Your task to perform on an android device: Add corsair k70 to the cart on newegg Image 0: 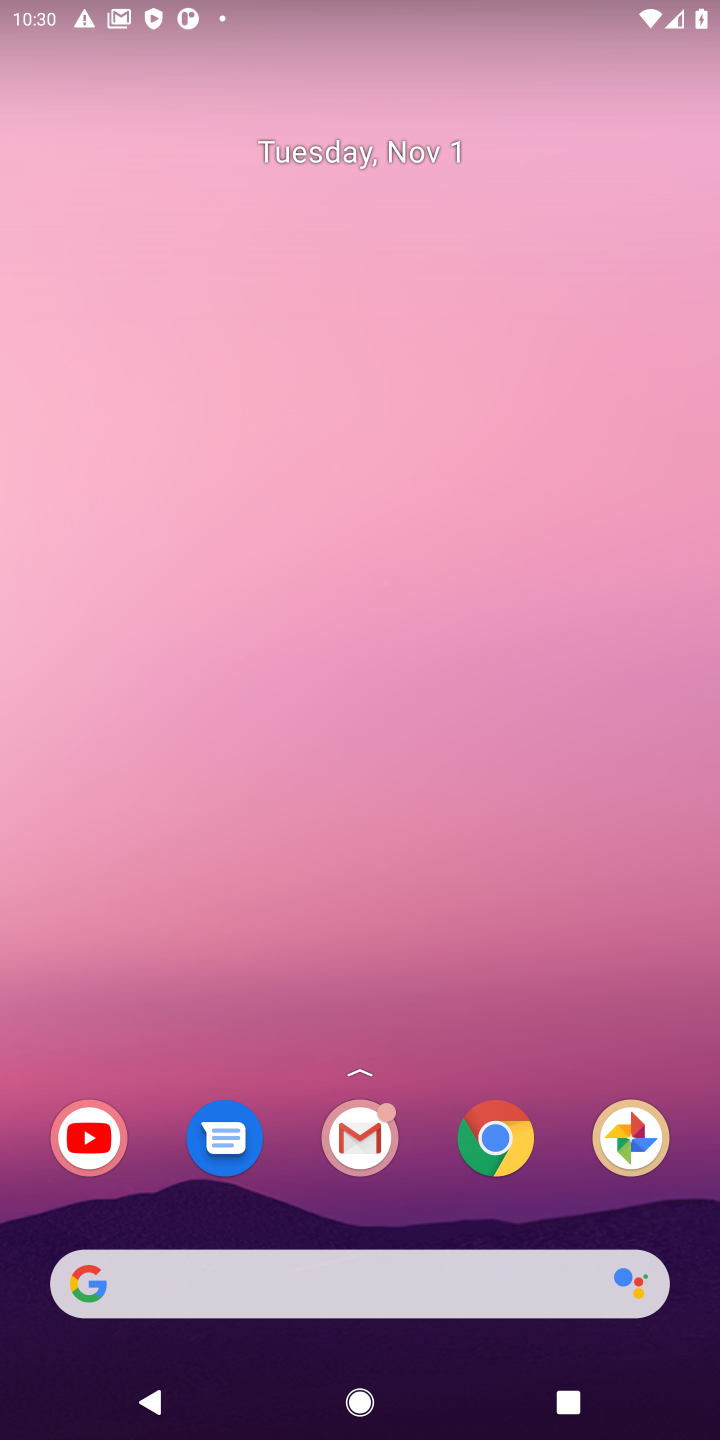
Step 0: click (513, 1143)
Your task to perform on an android device: Add corsair k70 to the cart on newegg Image 1: 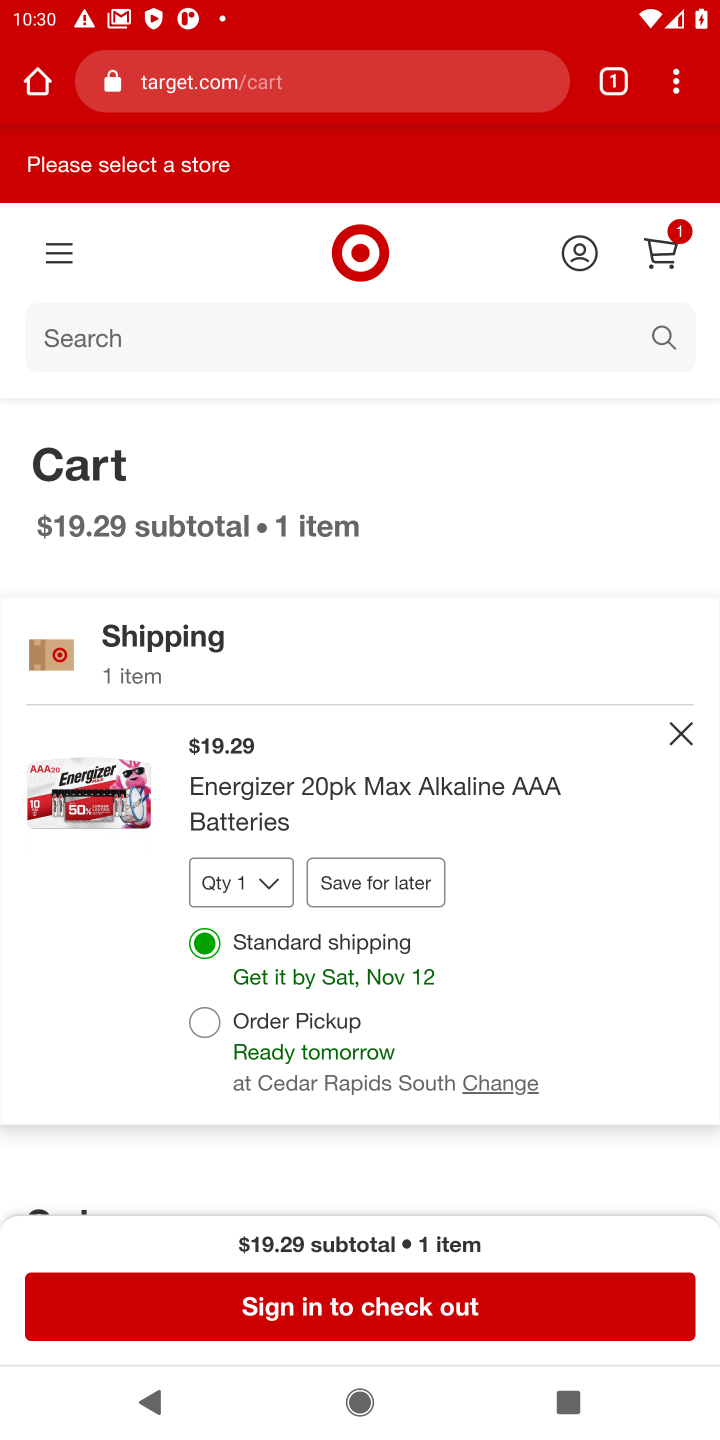
Step 1: click (274, 93)
Your task to perform on an android device: Add corsair k70 to the cart on newegg Image 2: 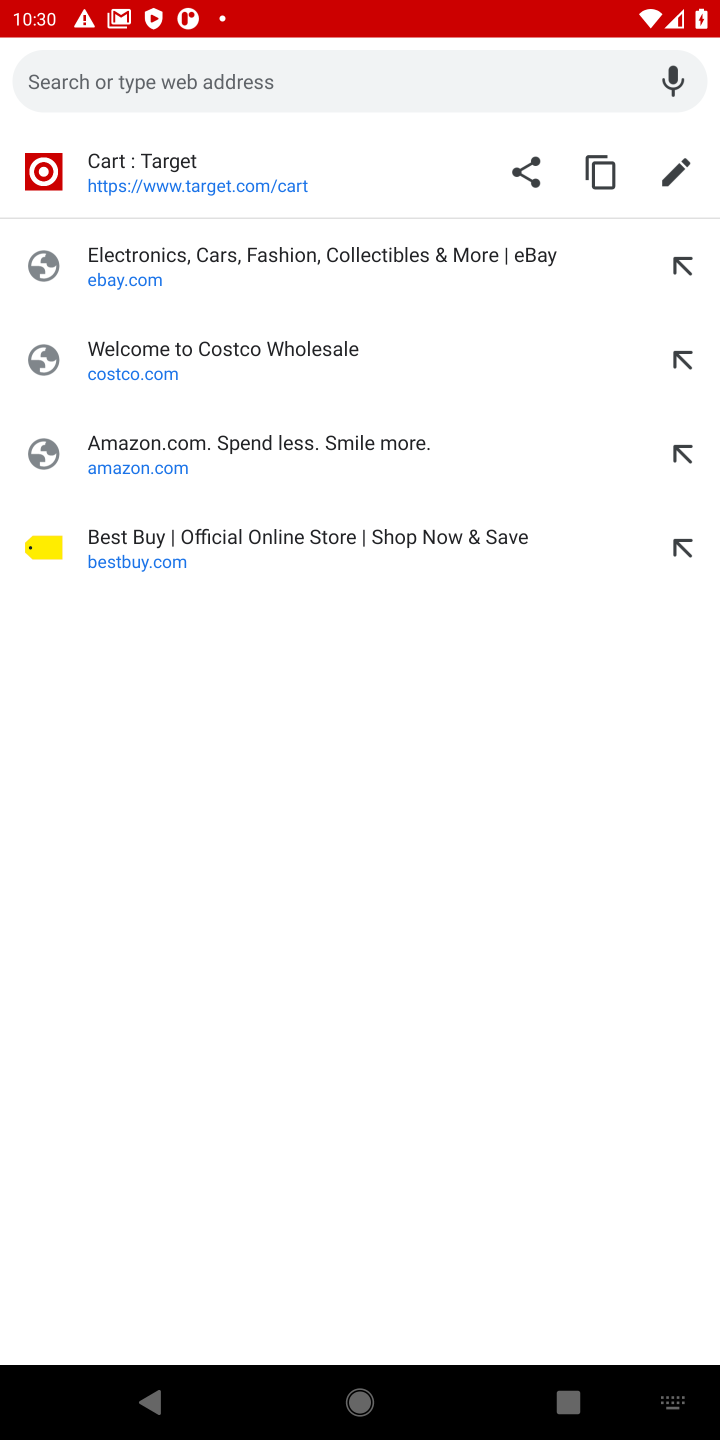
Step 2: type "newegg.com"
Your task to perform on an android device: Add corsair k70 to the cart on newegg Image 3: 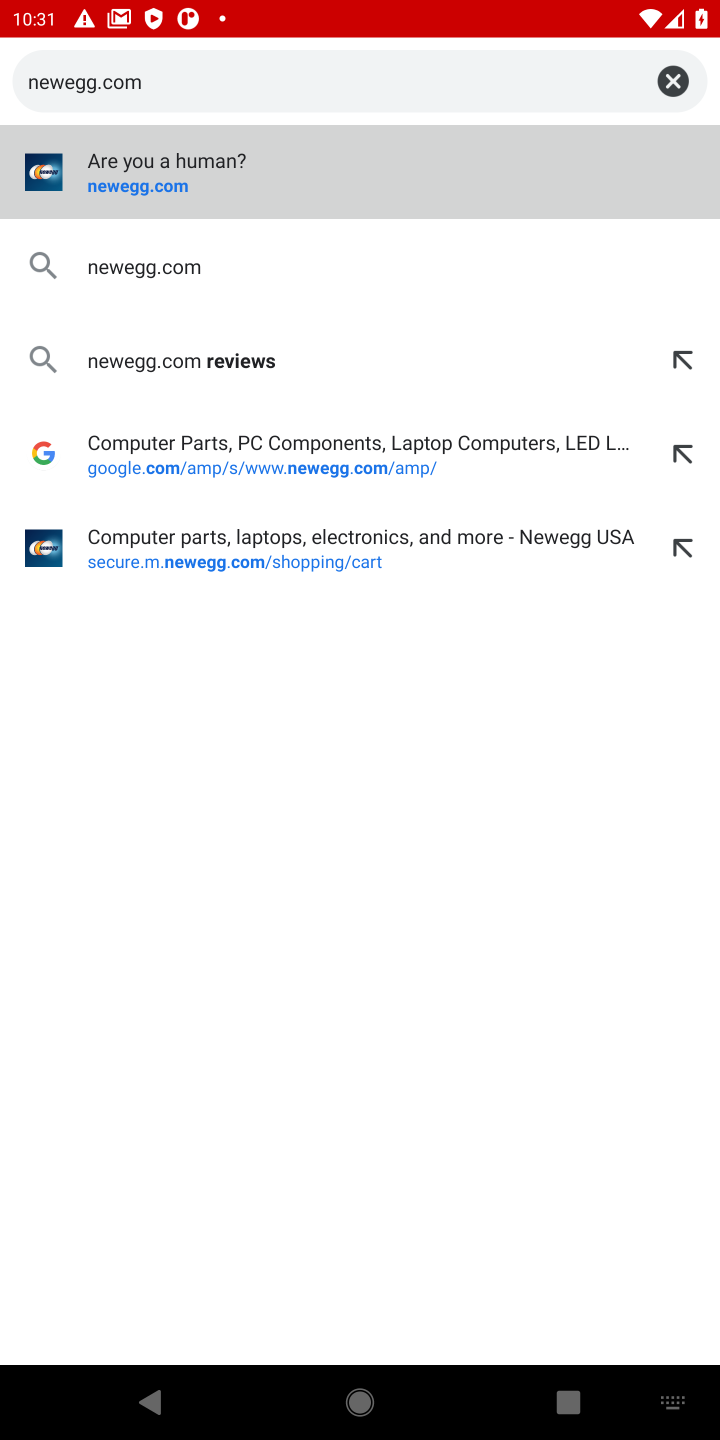
Step 3: click (134, 260)
Your task to perform on an android device: Add corsair k70 to the cart on newegg Image 4: 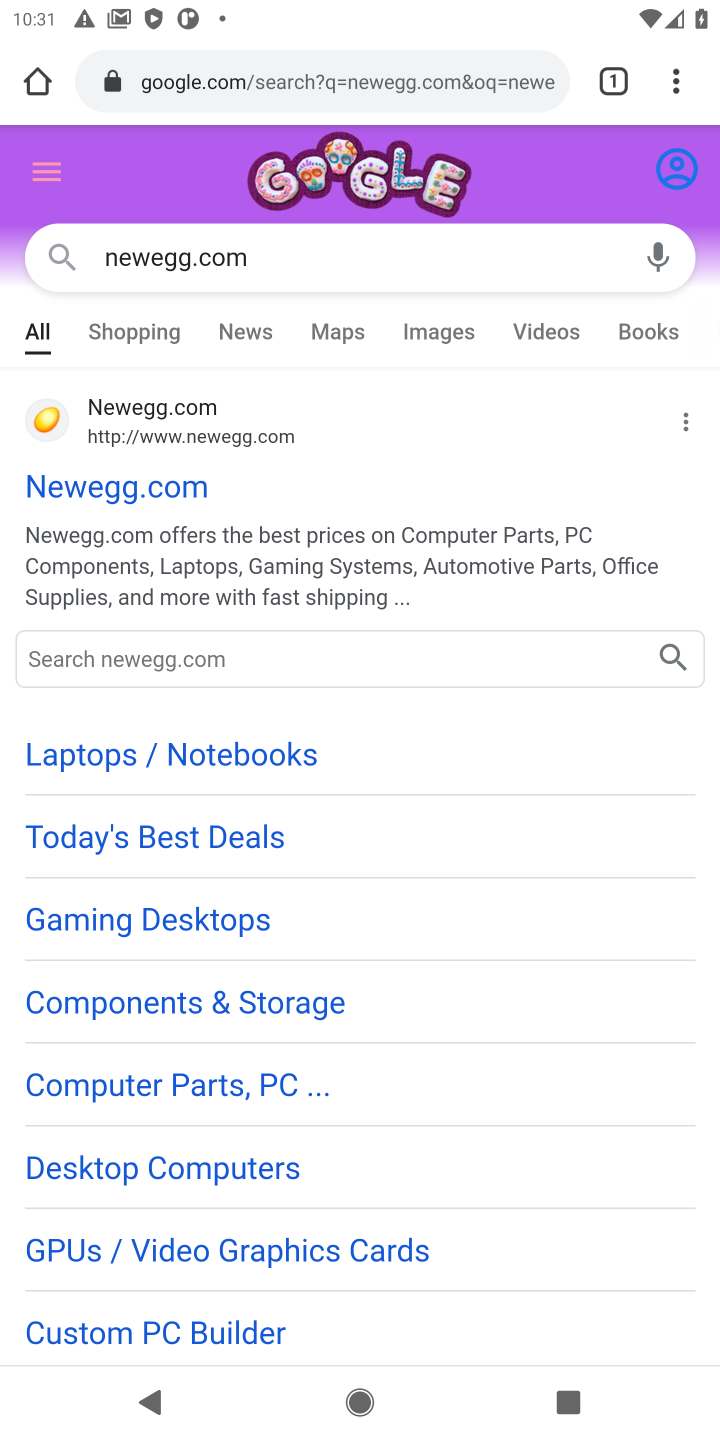
Step 4: click (100, 500)
Your task to perform on an android device: Add corsair k70 to the cart on newegg Image 5: 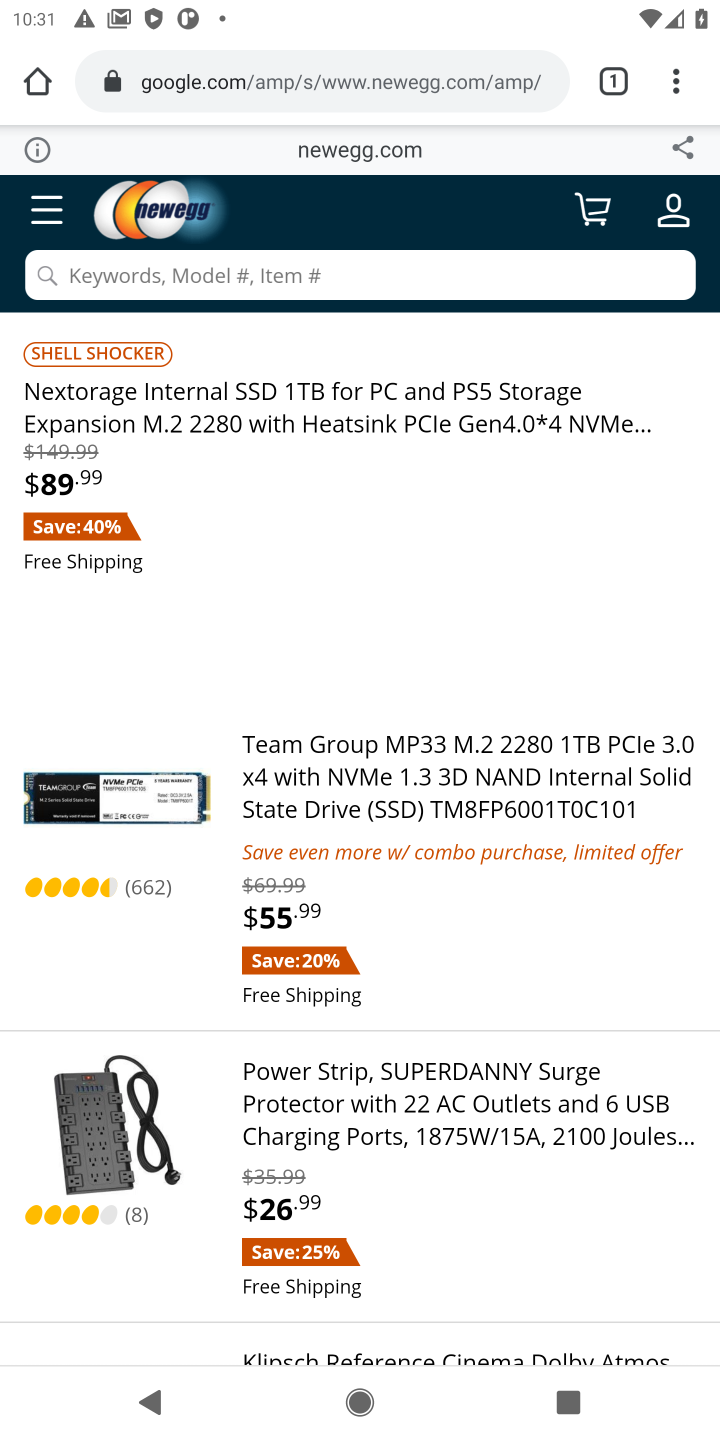
Step 5: click (231, 292)
Your task to perform on an android device: Add corsair k70 to the cart on newegg Image 6: 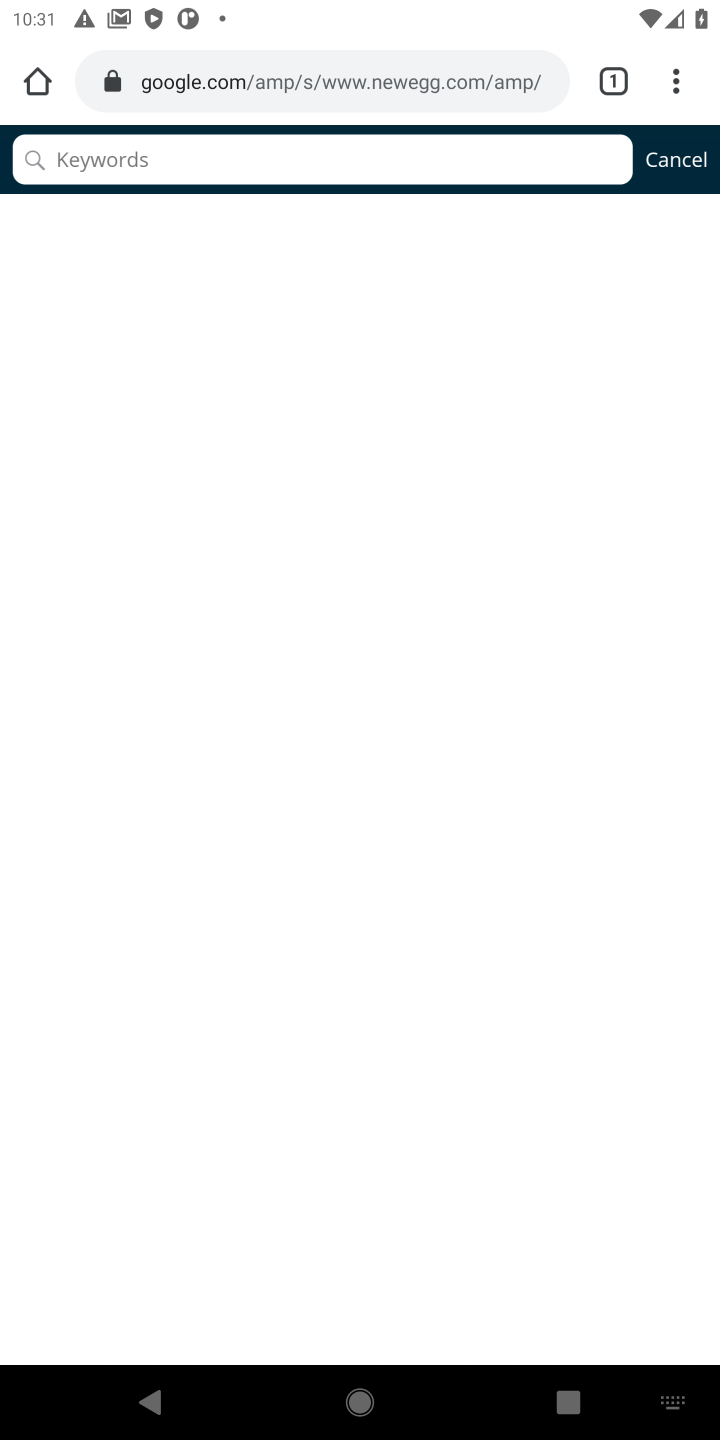
Step 6: type " corsair k70"
Your task to perform on an android device: Add corsair k70 to the cart on newegg Image 7: 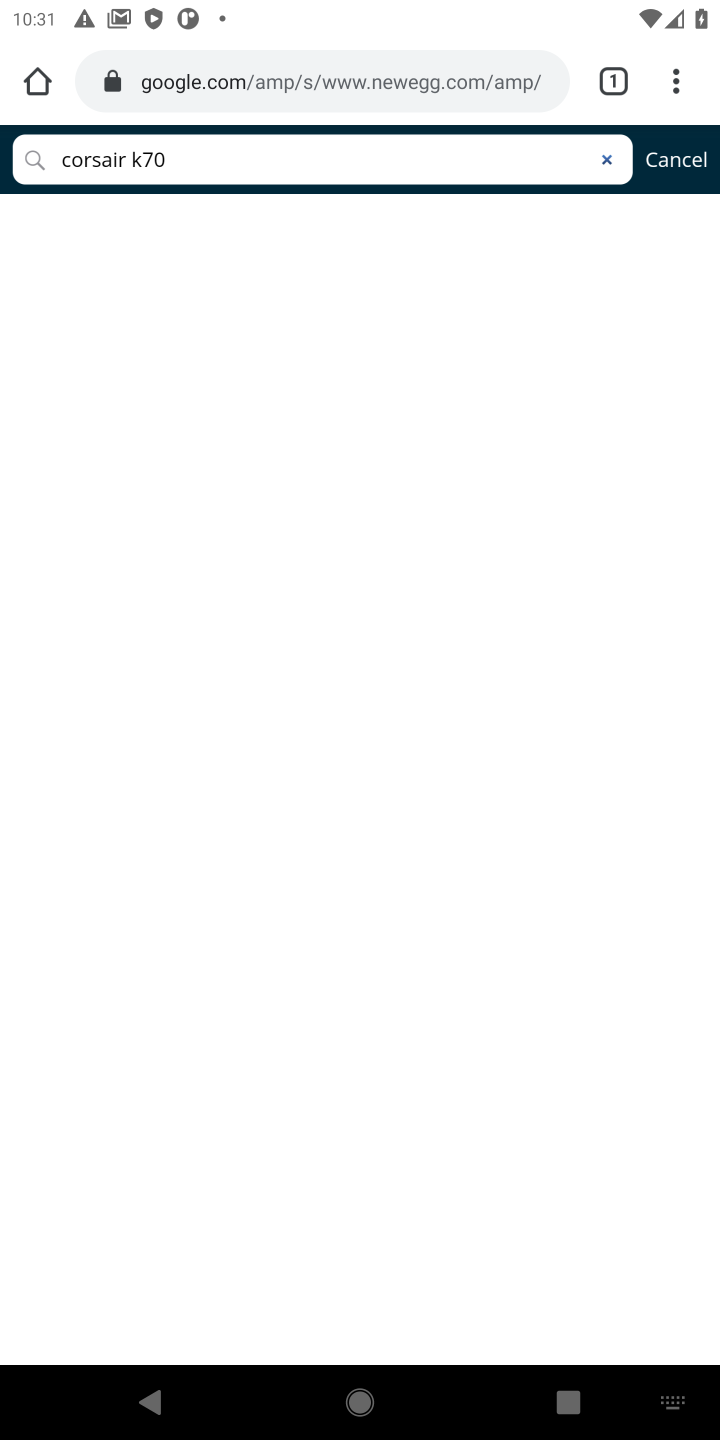
Step 7: click (29, 161)
Your task to perform on an android device: Add corsair k70 to the cart on newegg Image 8: 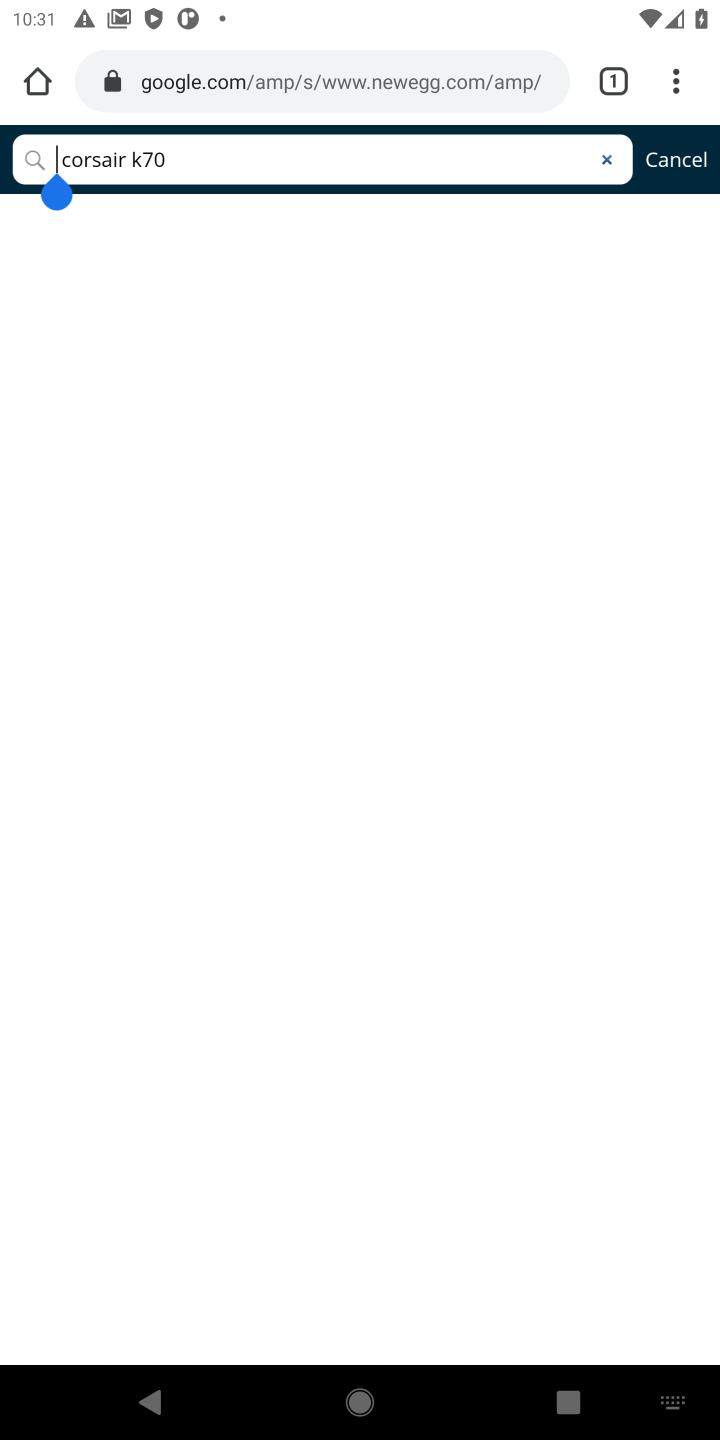
Step 8: task complete